Your task to perform on an android device: manage bookmarks in the chrome app Image 0: 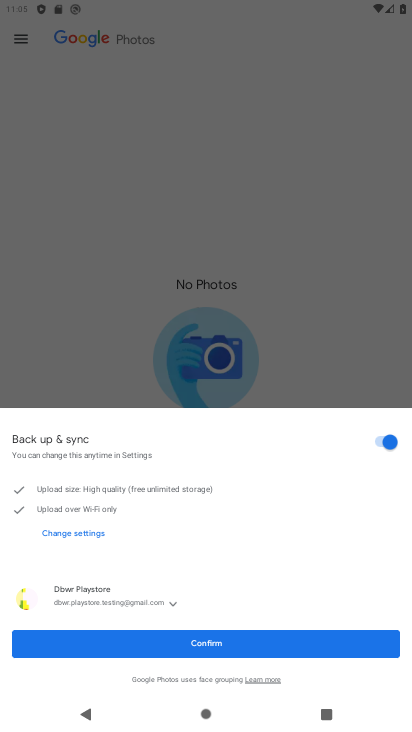
Step 0: press home button
Your task to perform on an android device: manage bookmarks in the chrome app Image 1: 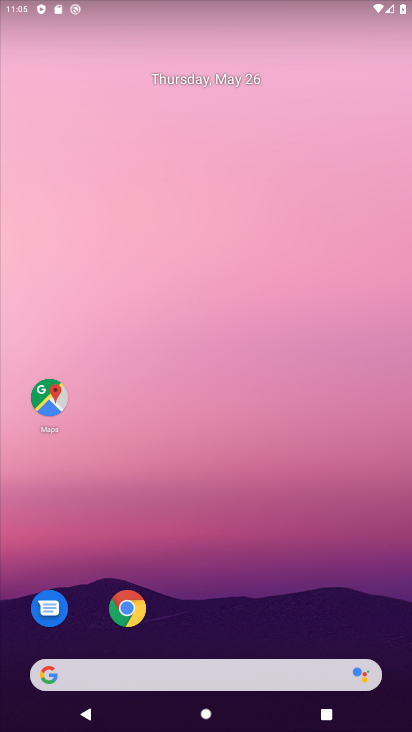
Step 1: click (131, 614)
Your task to perform on an android device: manage bookmarks in the chrome app Image 2: 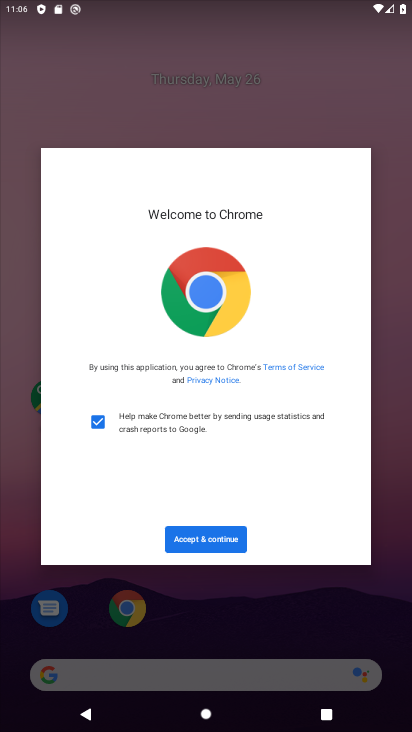
Step 2: click (206, 534)
Your task to perform on an android device: manage bookmarks in the chrome app Image 3: 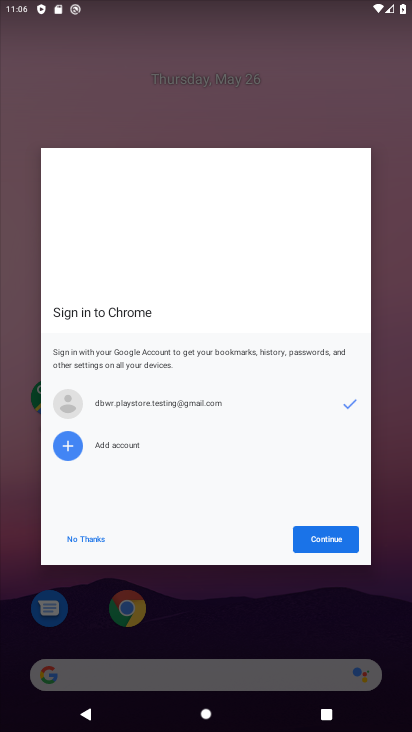
Step 3: click (331, 536)
Your task to perform on an android device: manage bookmarks in the chrome app Image 4: 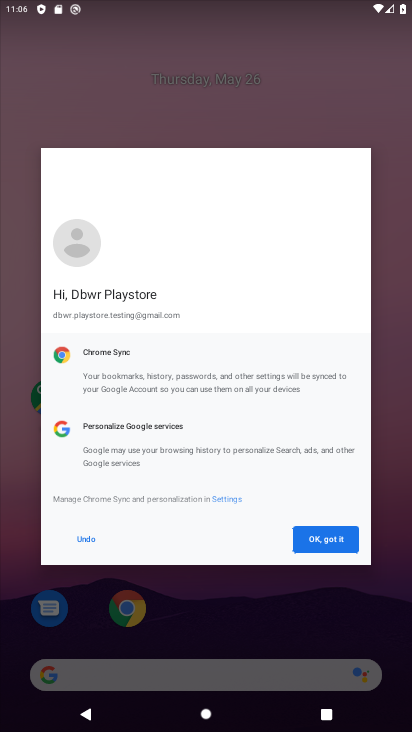
Step 4: click (327, 553)
Your task to perform on an android device: manage bookmarks in the chrome app Image 5: 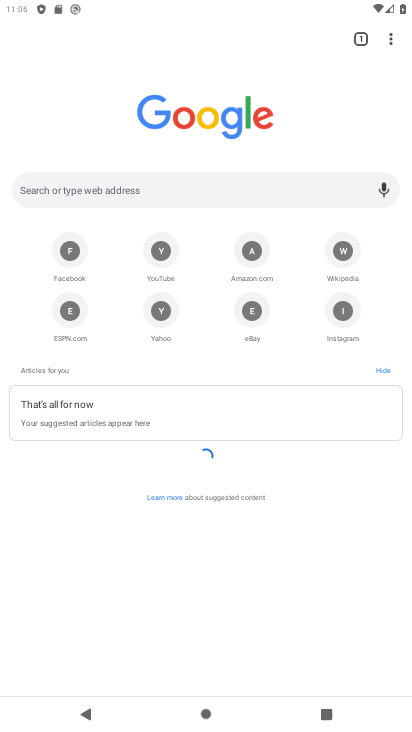
Step 5: click (394, 36)
Your task to perform on an android device: manage bookmarks in the chrome app Image 6: 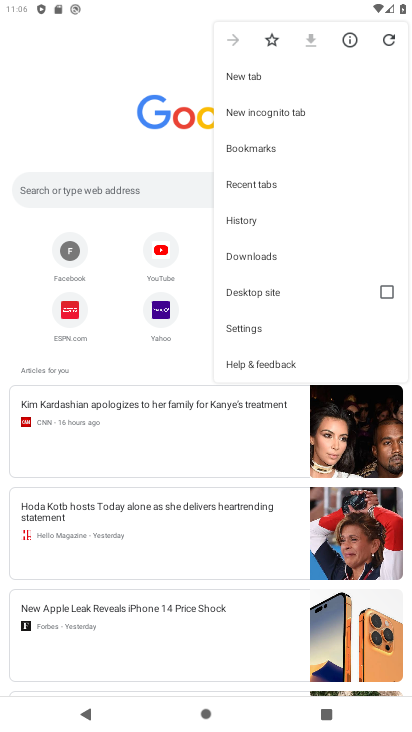
Step 6: click (262, 139)
Your task to perform on an android device: manage bookmarks in the chrome app Image 7: 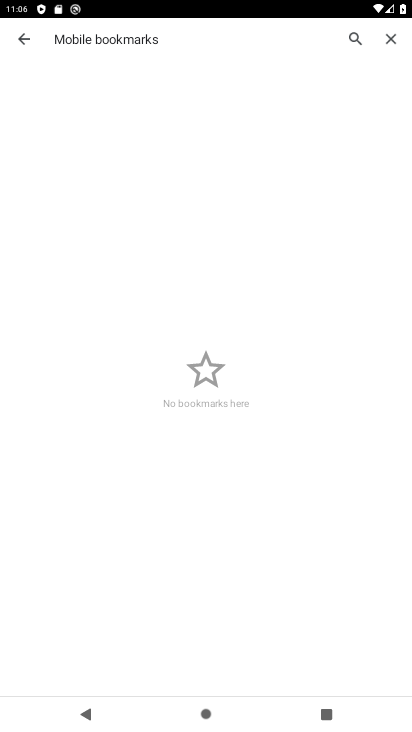
Step 7: task complete